Your task to perform on an android device: Show me popular videos on Youtube Image 0: 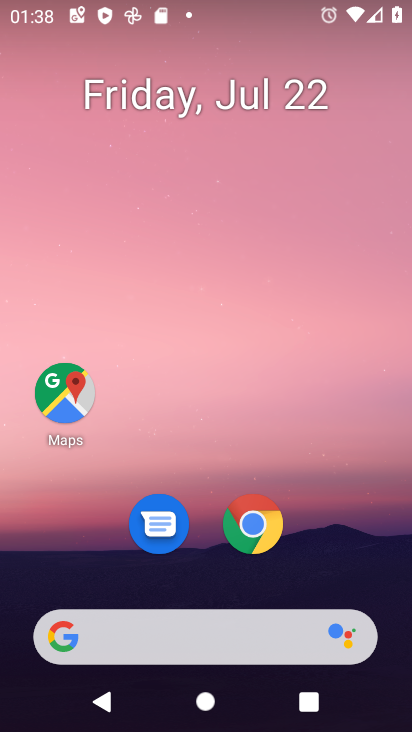
Step 0: drag from (162, 626) to (339, 98)
Your task to perform on an android device: Show me popular videos on Youtube Image 1: 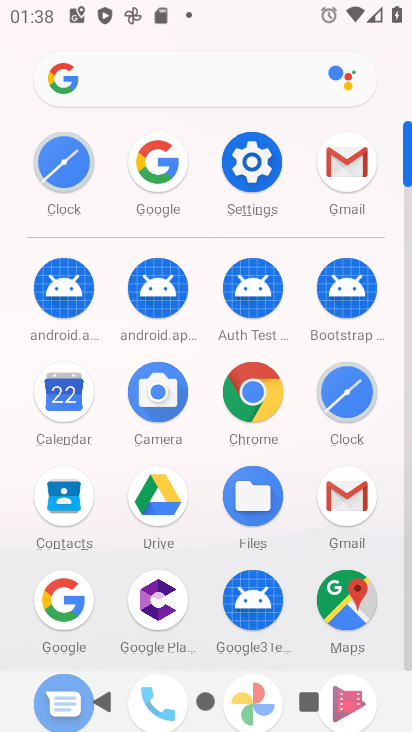
Step 1: drag from (166, 571) to (358, 201)
Your task to perform on an android device: Show me popular videos on Youtube Image 2: 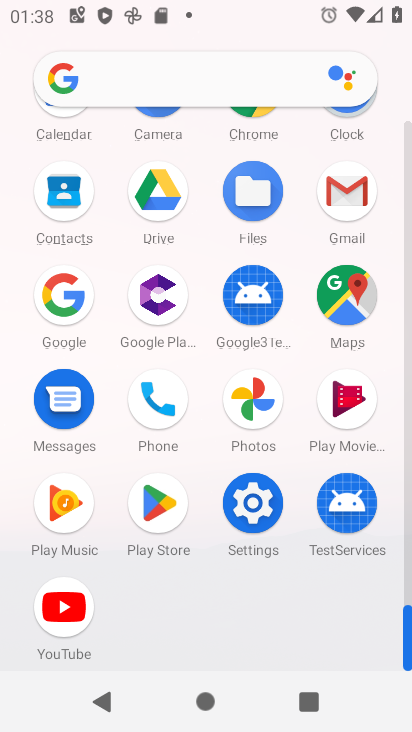
Step 2: click (57, 603)
Your task to perform on an android device: Show me popular videos on Youtube Image 3: 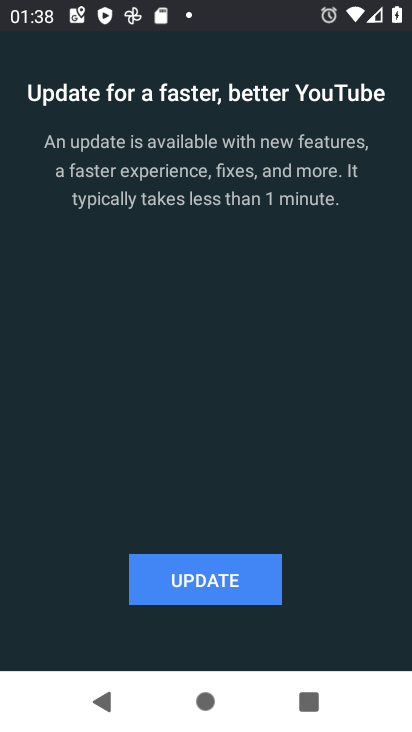
Step 3: click (203, 596)
Your task to perform on an android device: Show me popular videos on Youtube Image 4: 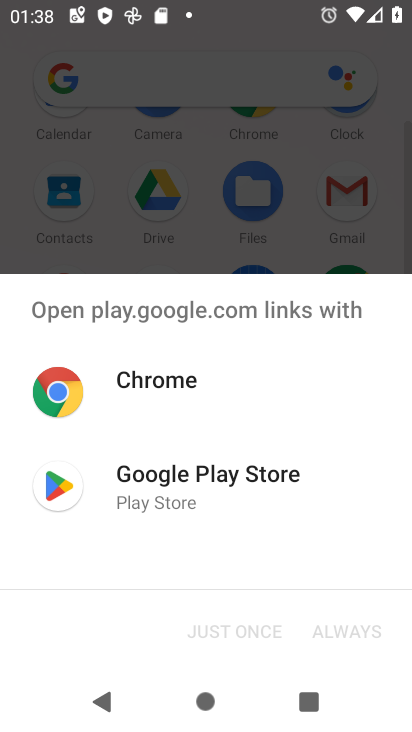
Step 4: click (202, 471)
Your task to perform on an android device: Show me popular videos on Youtube Image 5: 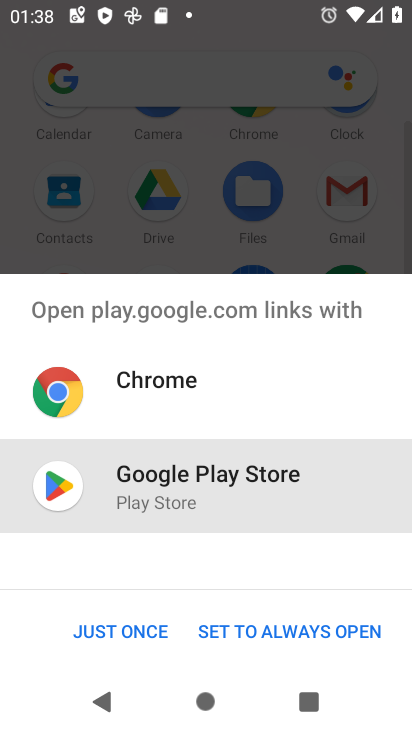
Step 5: click (132, 632)
Your task to perform on an android device: Show me popular videos on Youtube Image 6: 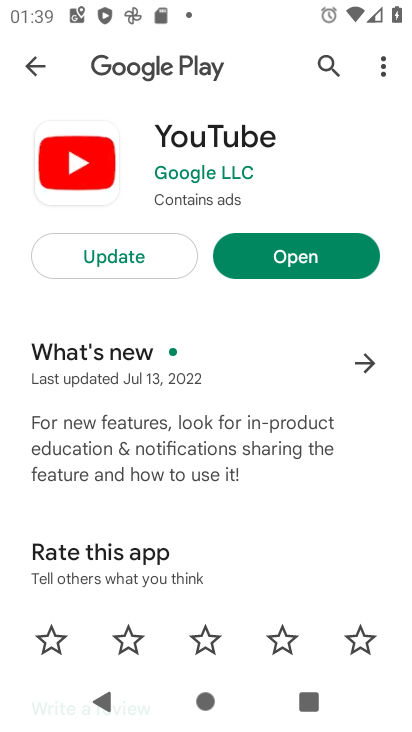
Step 6: click (142, 263)
Your task to perform on an android device: Show me popular videos on Youtube Image 7: 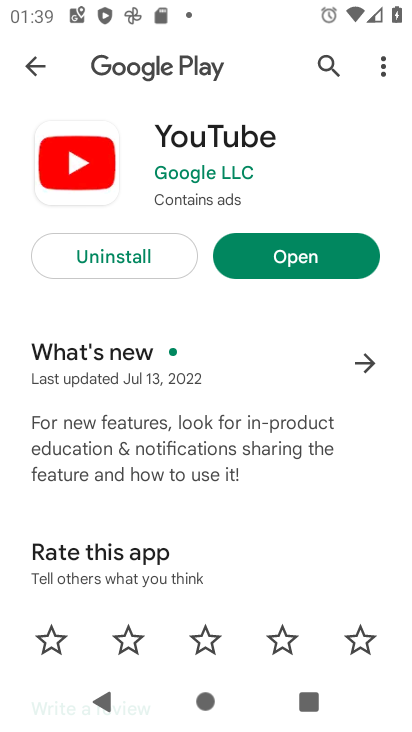
Step 7: click (259, 258)
Your task to perform on an android device: Show me popular videos on Youtube Image 8: 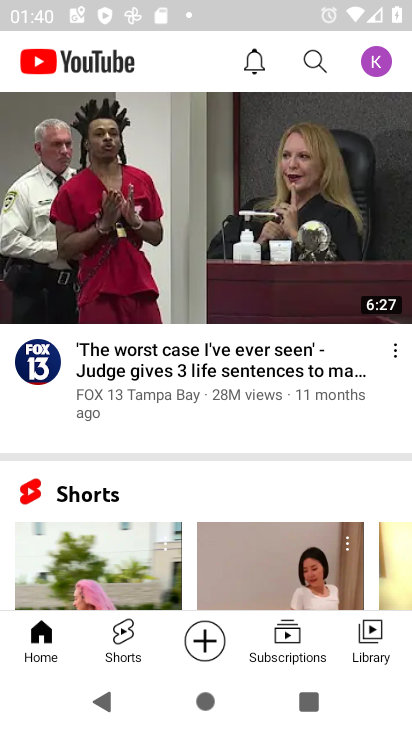
Step 8: task complete